Your task to perform on an android device: Open calendar and show me the second week of next month Image 0: 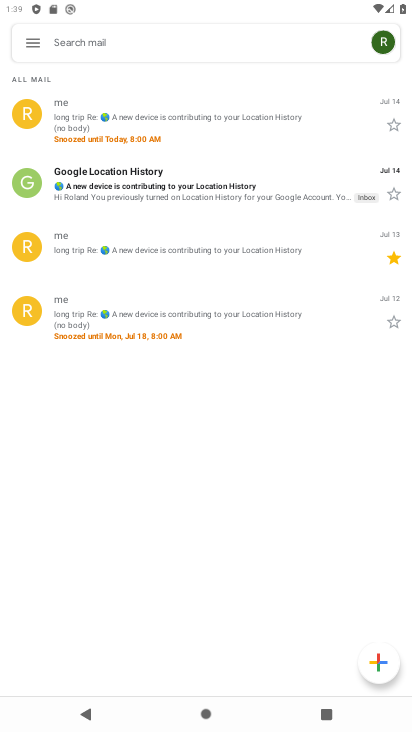
Step 0: press home button
Your task to perform on an android device: Open calendar and show me the second week of next month Image 1: 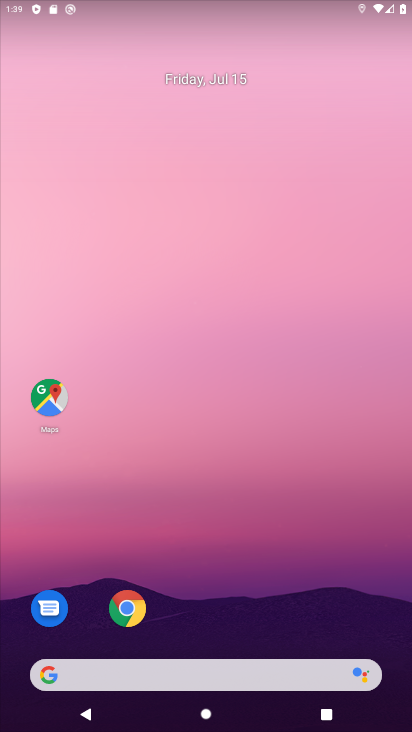
Step 1: drag from (196, 599) to (182, 159)
Your task to perform on an android device: Open calendar and show me the second week of next month Image 2: 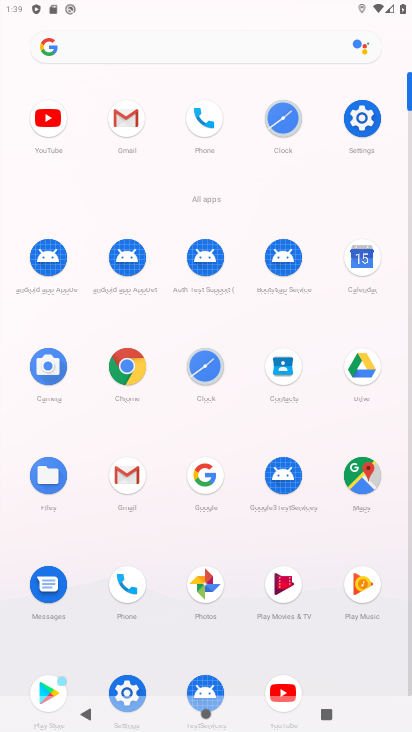
Step 2: click (360, 276)
Your task to perform on an android device: Open calendar and show me the second week of next month Image 3: 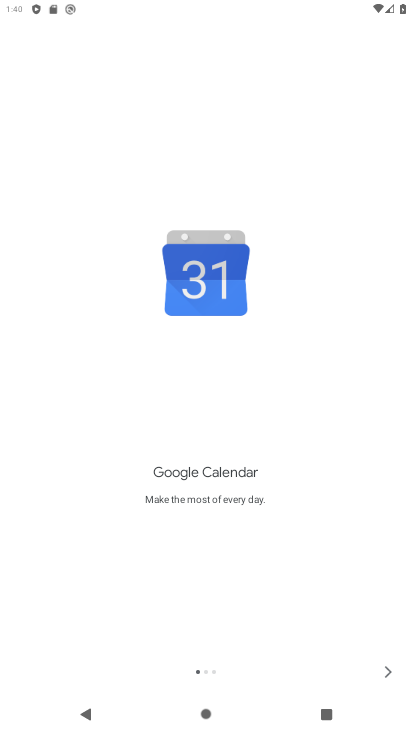
Step 3: click (386, 675)
Your task to perform on an android device: Open calendar and show me the second week of next month Image 4: 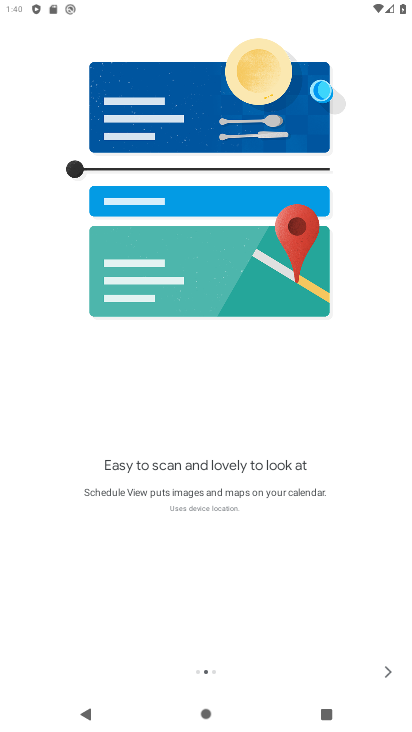
Step 4: click (380, 673)
Your task to perform on an android device: Open calendar and show me the second week of next month Image 5: 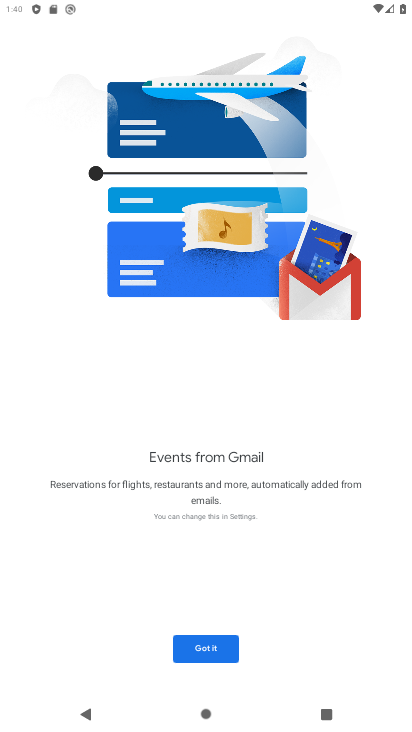
Step 5: click (192, 655)
Your task to perform on an android device: Open calendar and show me the second week of next month Image 6: 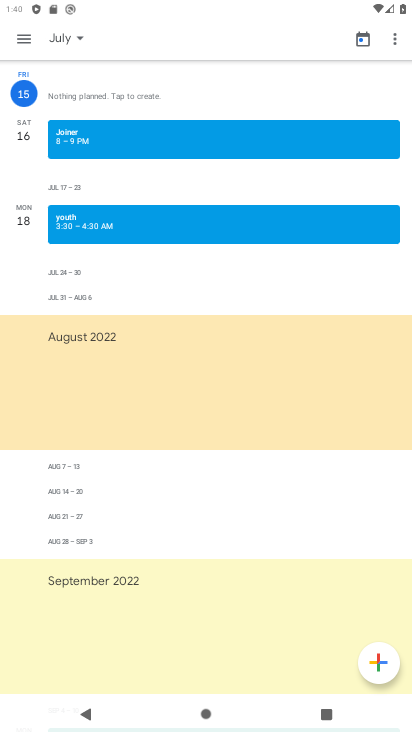
Step 6: click (19, 43)
Your task to perform on an android device: Open calendar and show me the second week of next month Image 7: 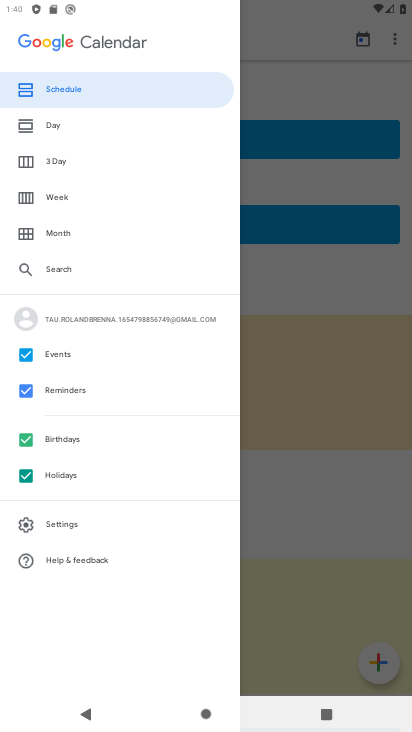
Step 7: click (55, 240)
Your task to perform on an android device: Open calendar and show me the second week of next month Image 8: 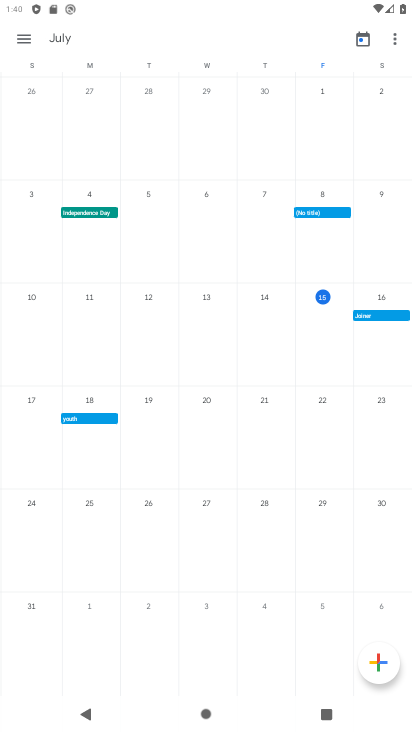
Step 8: task complete